Your task to perform on an android device: Open wifi settings Image 0: 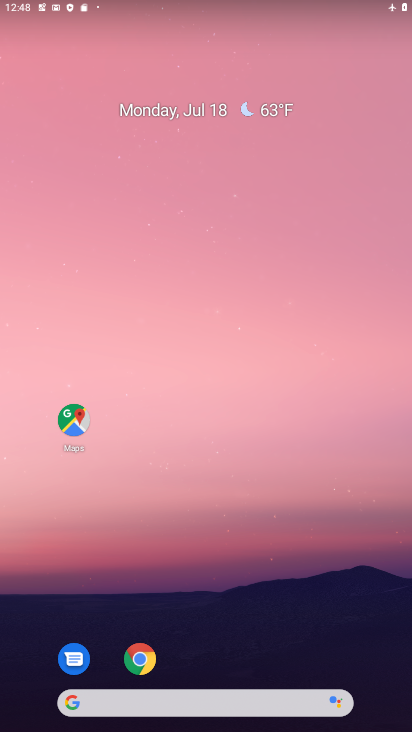
Step 0: drag from (219, 620) to (290, 151)
Your task to perform on an android device: Open wifi settings Image 1: 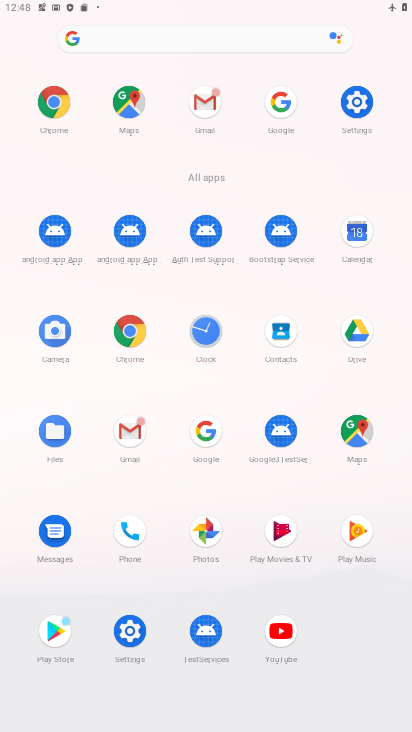
Step 1: click (363, 99)
Your task to perform on an android device: Open wifi settings Image 2: 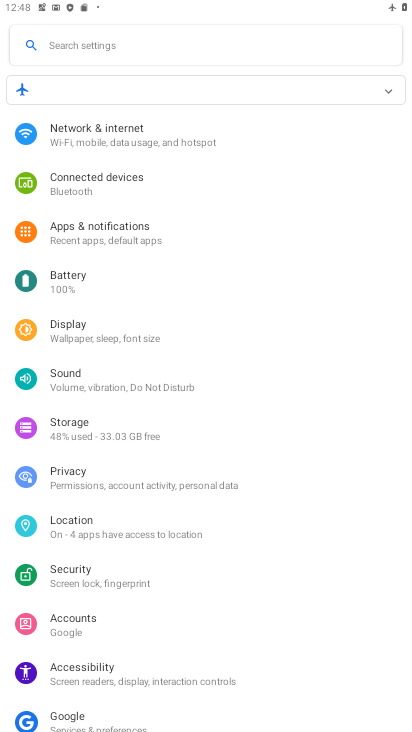
Step 2: click (114, 138)
Your task to perform on an android device: Open wifi settings Image 3: 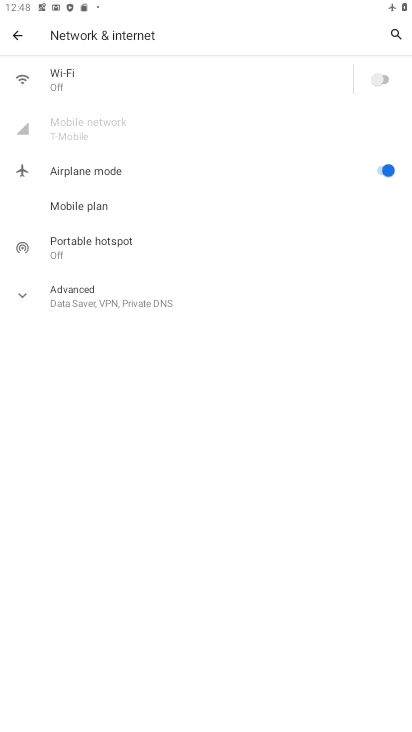
Step 3: click (388, 164)
Your task to perform on an android device: Open wifi settings Image 4: 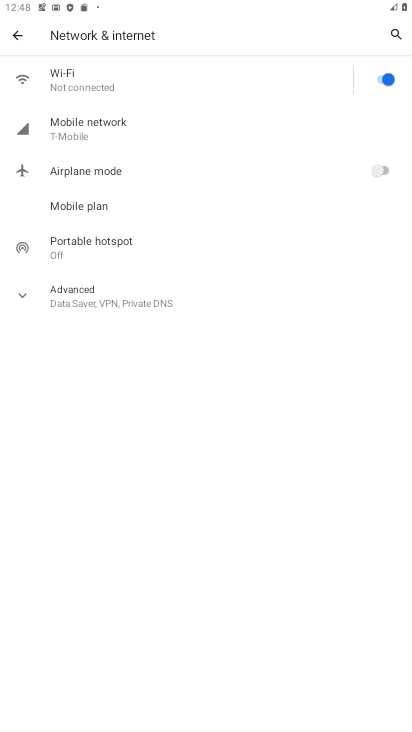
Step 4: click (381, 77)
Your task to perform on an android device: Open wifi settings Image 5: 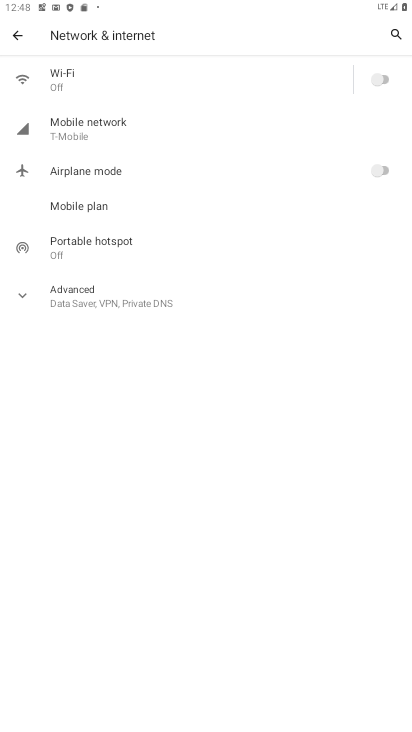
Step 5: click (137, 78)
Your task to perform on an android device: Open wifi settings Image 6: 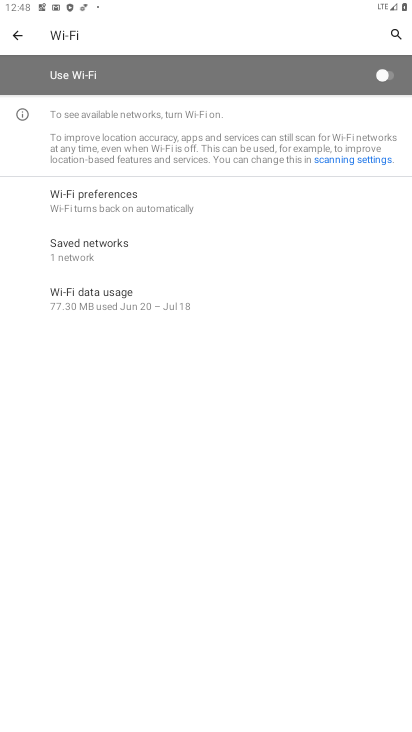
Step 6: click (393, 70)
Your task to perform on an android device: Open wifi settings Image 7: 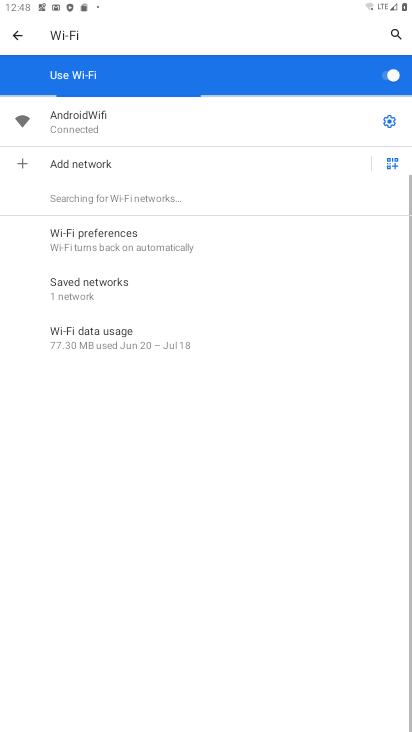
Step 7: click (395, 114)
Your task to perform on an android device: Open wifi settings Image 8: 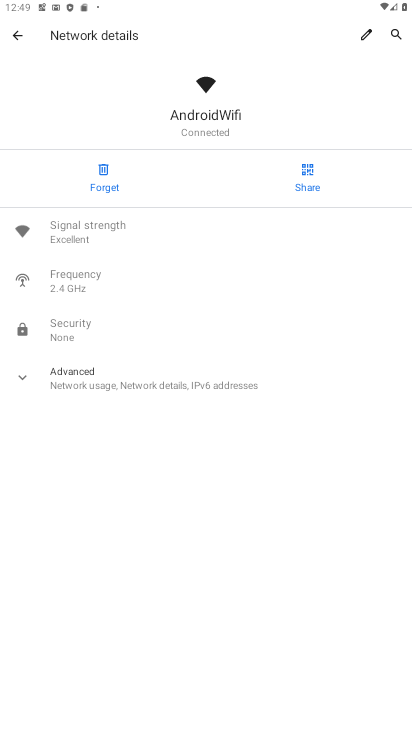
Step 8: click (57, 376)
Your task to perform on an android device: Open wifi settings Image 9: 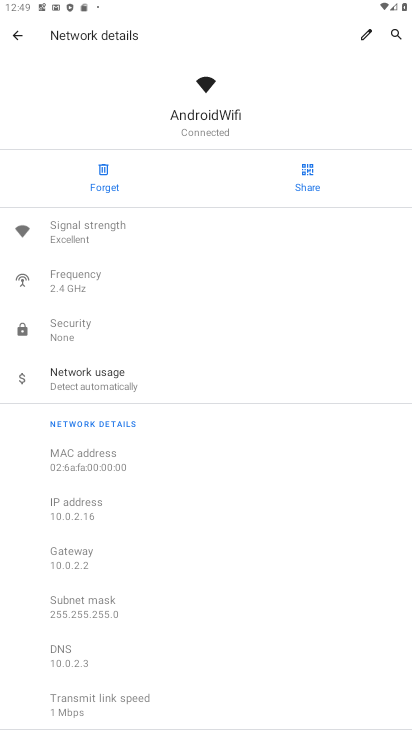
Step 9: task complete